Your task to perform on an android device: turn on javascript in the chrome app Image 0: 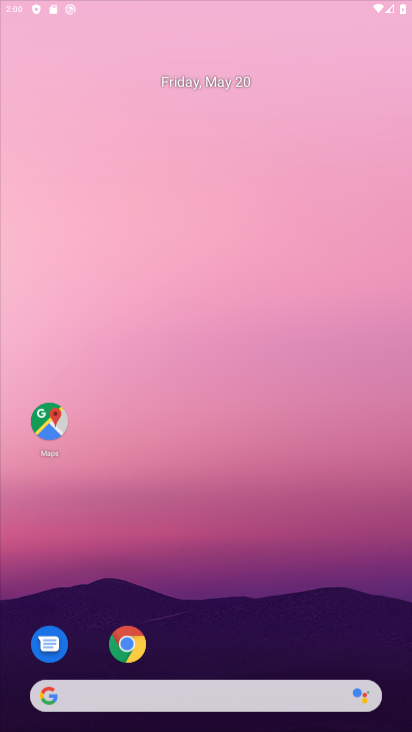
Step 0: click (8, 114)
Your task to perform on an android device: turn on javascript in the chrome app Image 1: 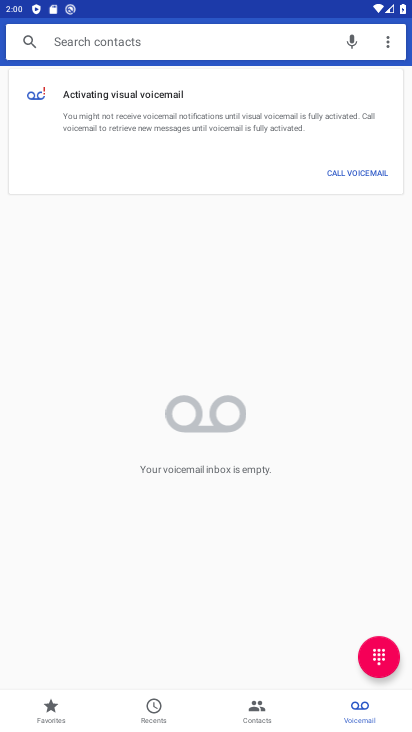
Step 1: press home button
Your task to perform on an android device: turn on javascript in the chrome app Image 2: 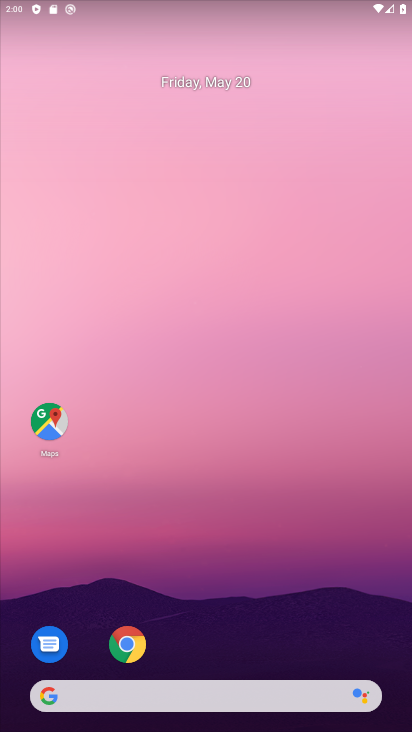
Step 2: click (129, 639)
Your task to perform on an android device: turn on javascript in the chrome app Image 3: 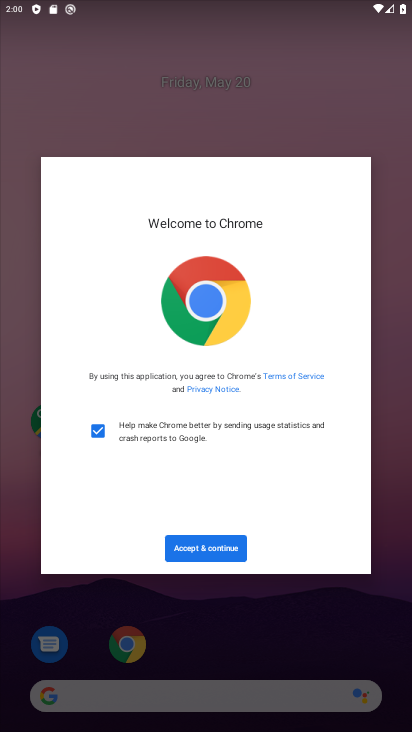
Step 3: click (229, 541)
Your task to perform on an android device: turn on javascript in the chrome app Image 4: 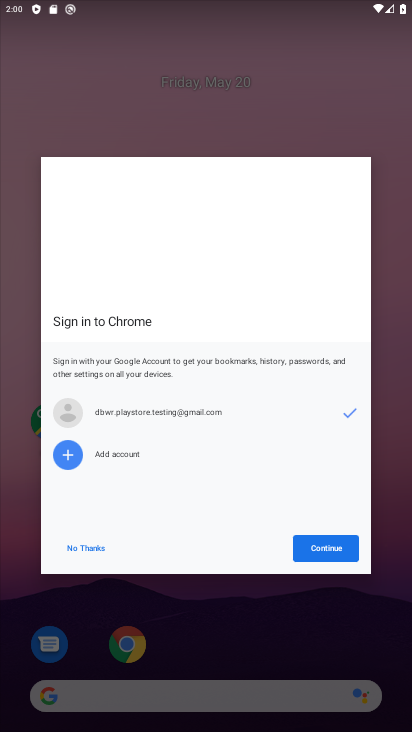
Step 4: click (83, 549)
Your task to perform on an android device: turn on javascript in the chrome app Image 5: 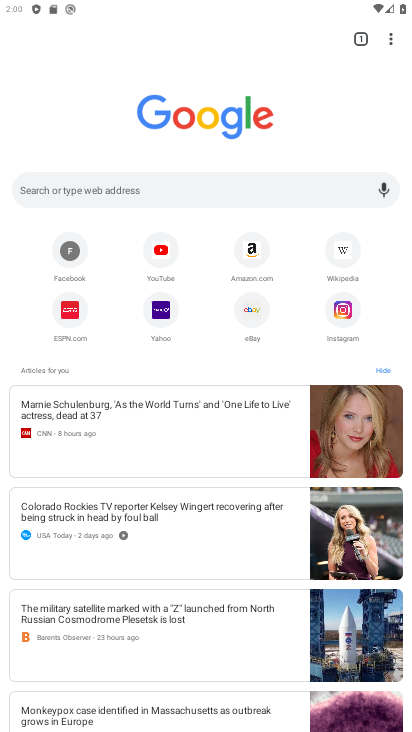
Step 5: click (394, 33)
Your task to perform on an android device: turn on javascript in the chrome app Image 6: 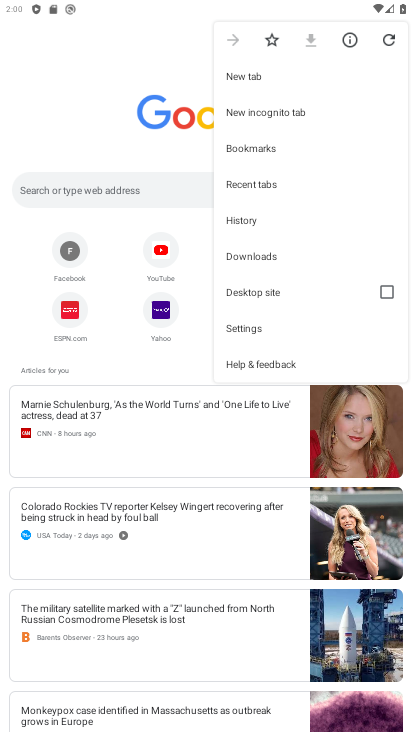
Step 6: click (263, 330)
Your task to perform on an android device: turn on javascript in the chrome app Image 7: 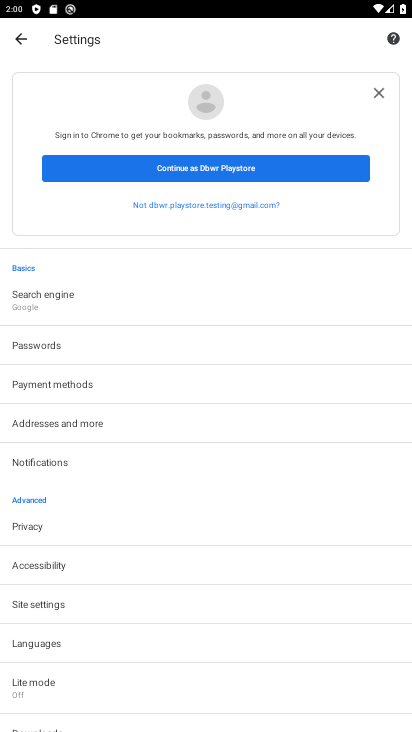
Step 7: click (72, 609)
Your task to perform on an android device: turn on javascript in the chrome app Image 8: 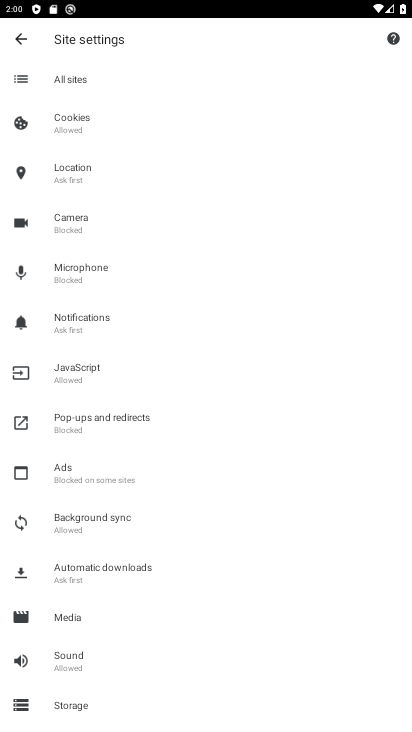
Step 8: drag from (119, 657) to (188, 365)
Your task to perform on an android device: turn on javascript in the chrome app Image 9: 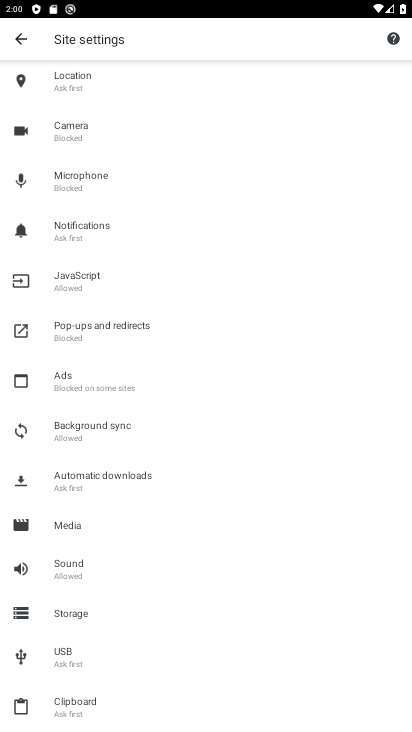
Step 9: click (131, 283)
Your task to perform on an android device: turn on javascript in the chrome app Image 10: 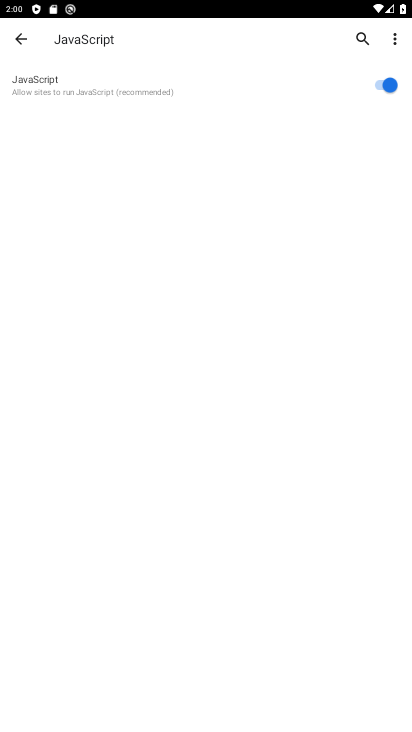
Step 10: task complete